Your task to perform on an android device: manage bookmarks in the chrome app Image 0: 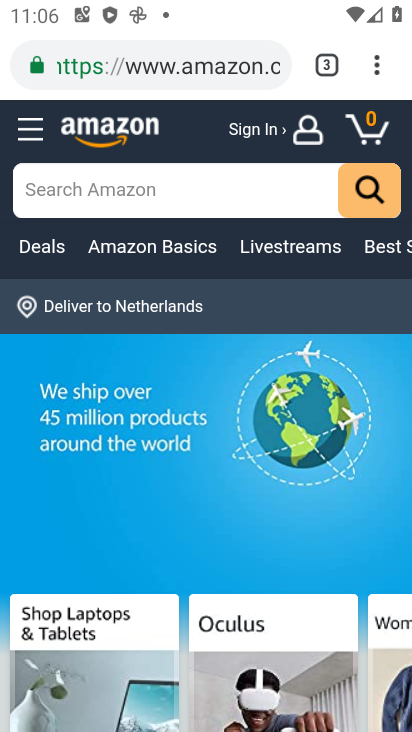
Step 0: press home button
Your task to perform on an android device: manage bookmarks in the chrome app Image 1: 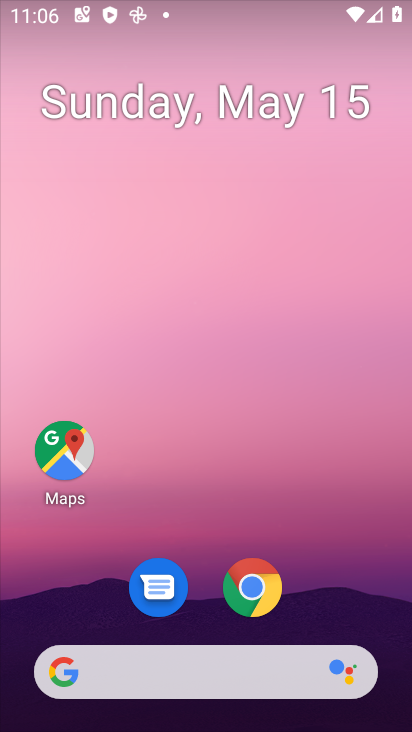
Step 1: drag from (381, 642) to (304, 102)
Your task to perform on an android device: manage bookmarks in the chrome app Image 2: 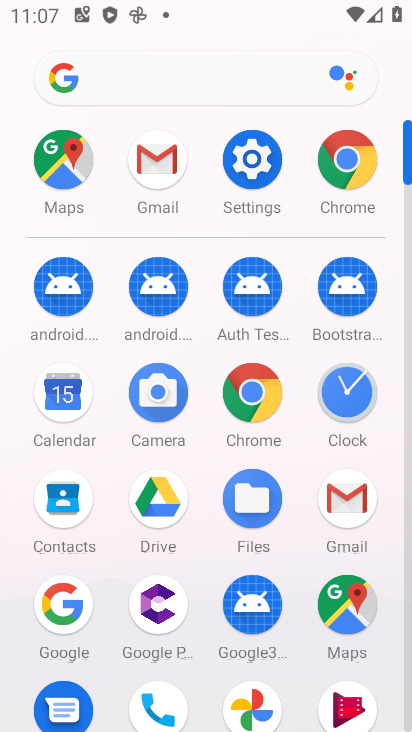
Step 2: click (247, 407)
Your task to perform on an android device: manage bookmarks in the chrome app Image 3: 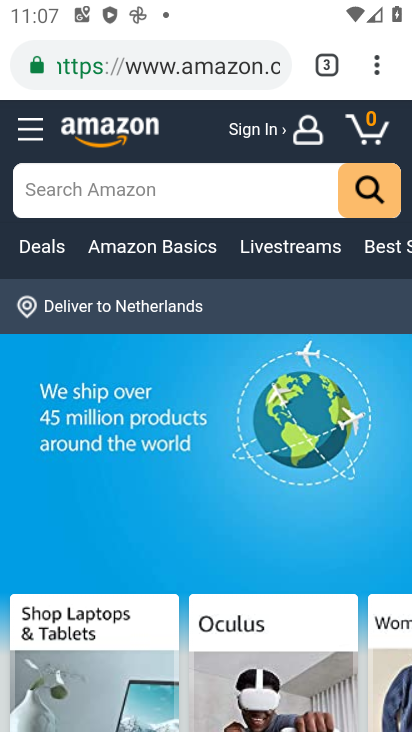
Step 3: task complete